Your task to perform on an android device: Go to network settings Image 0: 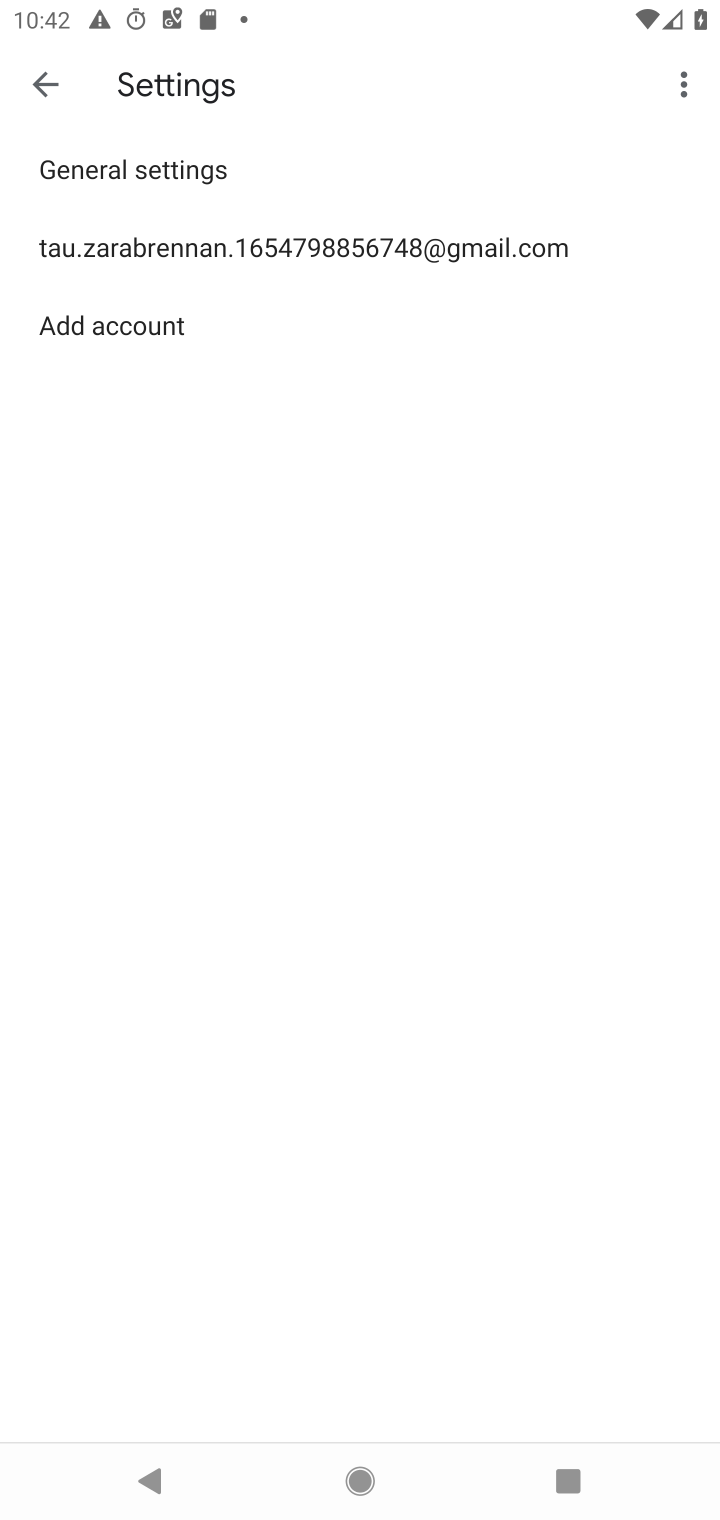
Step 0: press home button
Your task to perform on an android device: Go to network settings Image 1: 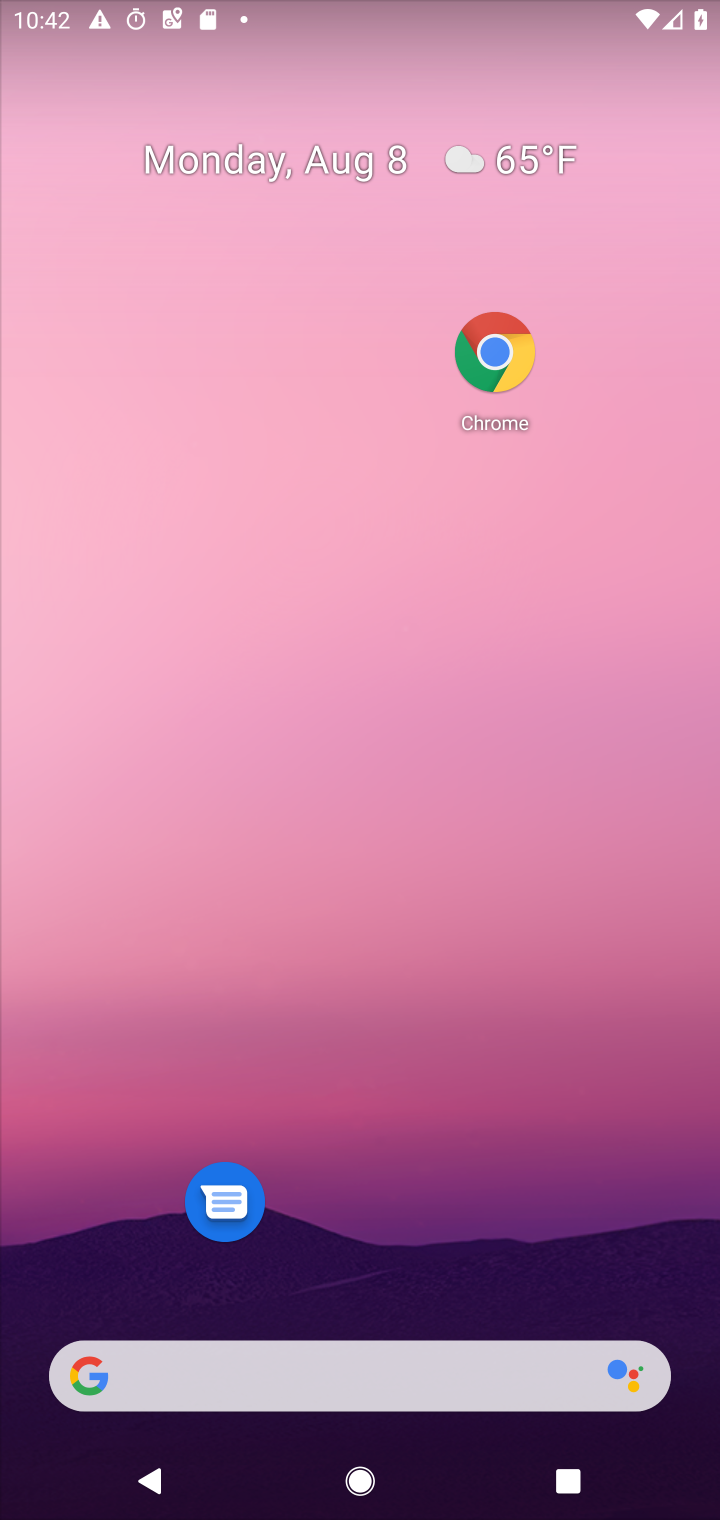
Step 1: drag from (370, 1255) to (404, 564)
Your task to perform on an android device: Go to network settings Image 2: 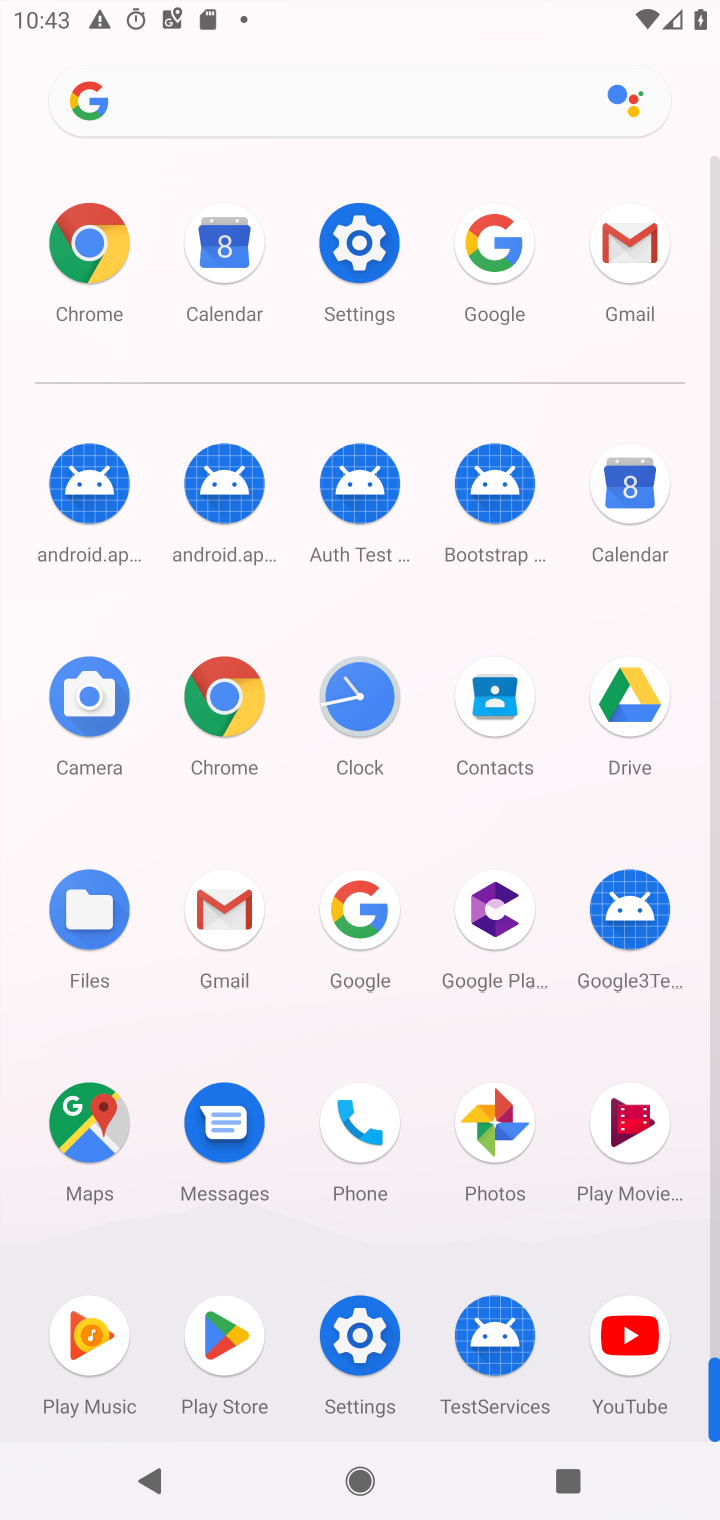
Step 2: click (367, 229)
Your task to perform on an android device: Go to network settings Image 3: 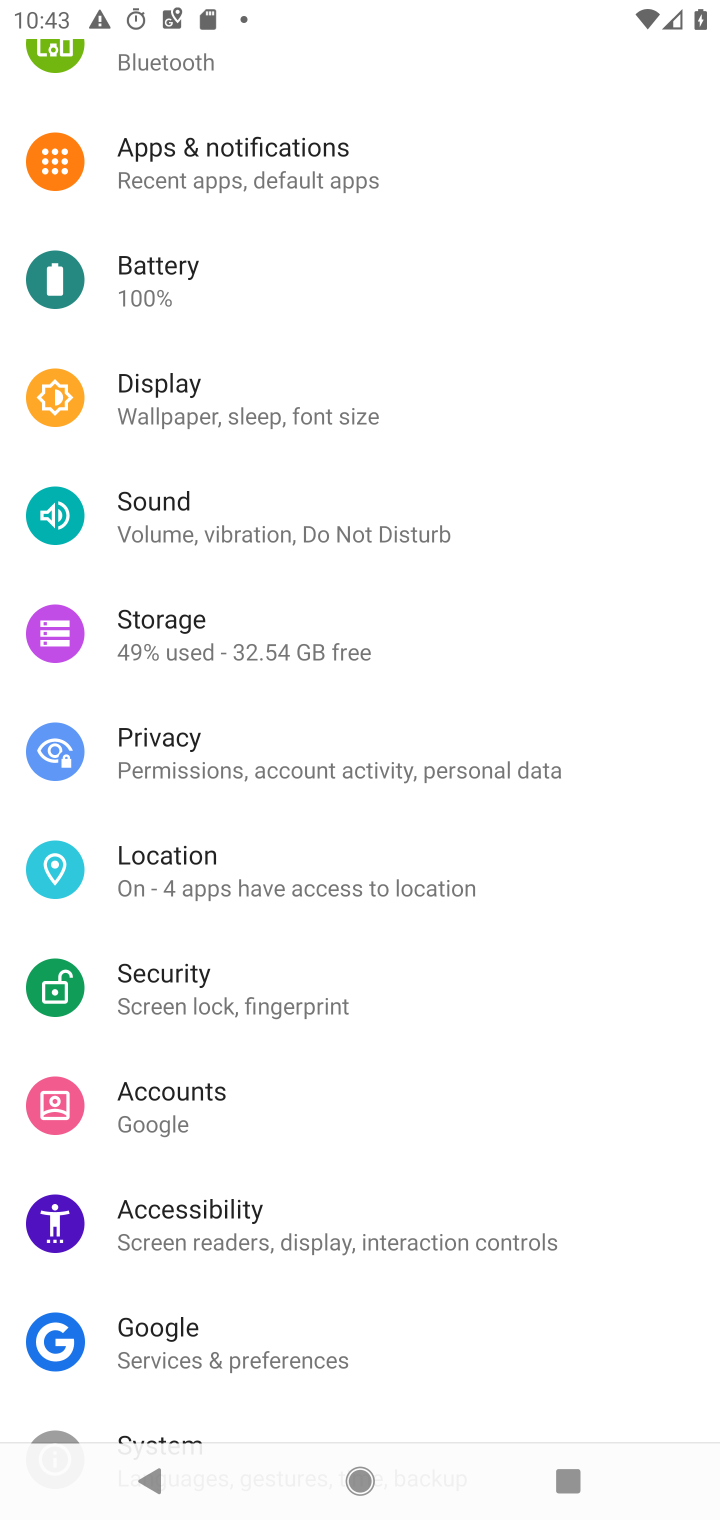
Step 3: drag from (339, 207) to (257, 1114)
Your task to perform on an android device: Go to network settings Image 4: 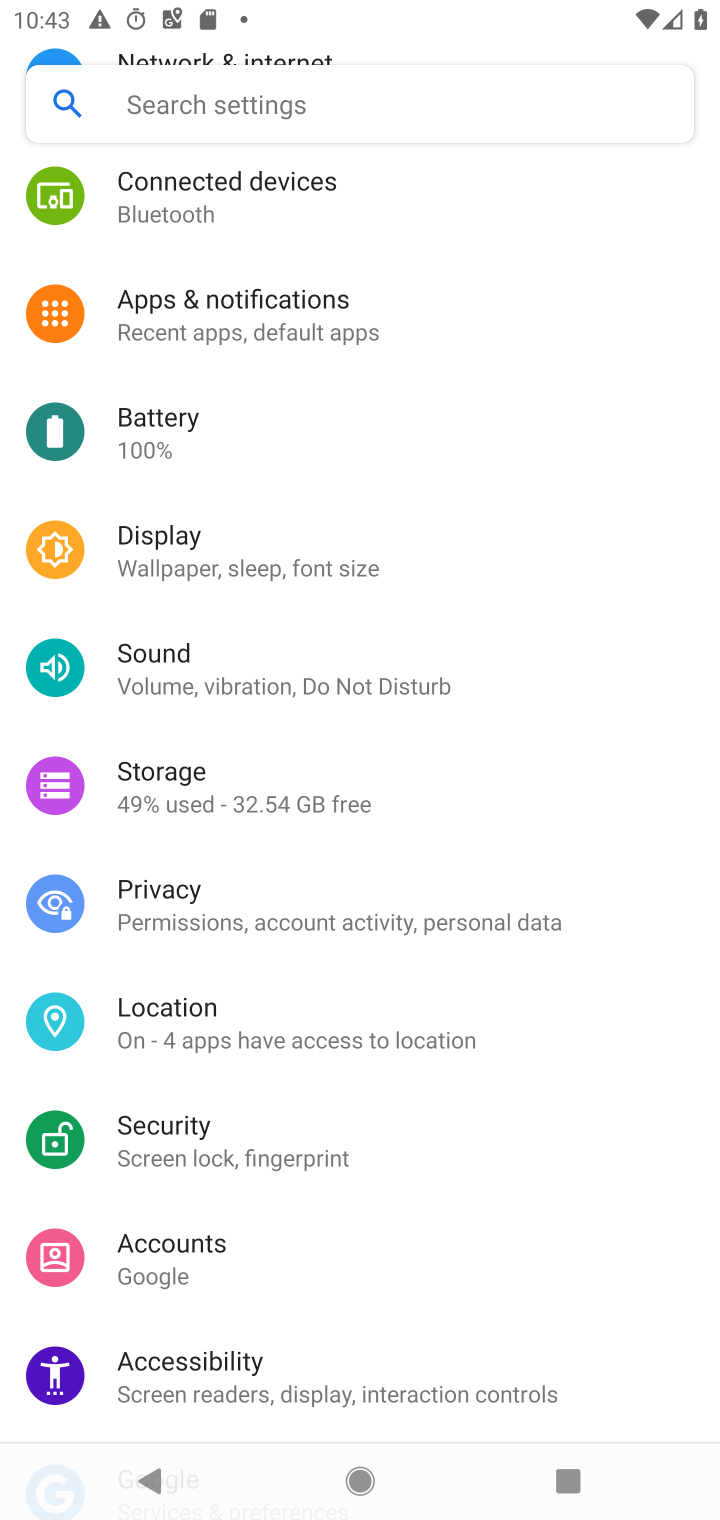
Step 4: drag from (315, 506) to (193, 1199)
Your task to perform on an android device: Go to network settings Image 5: 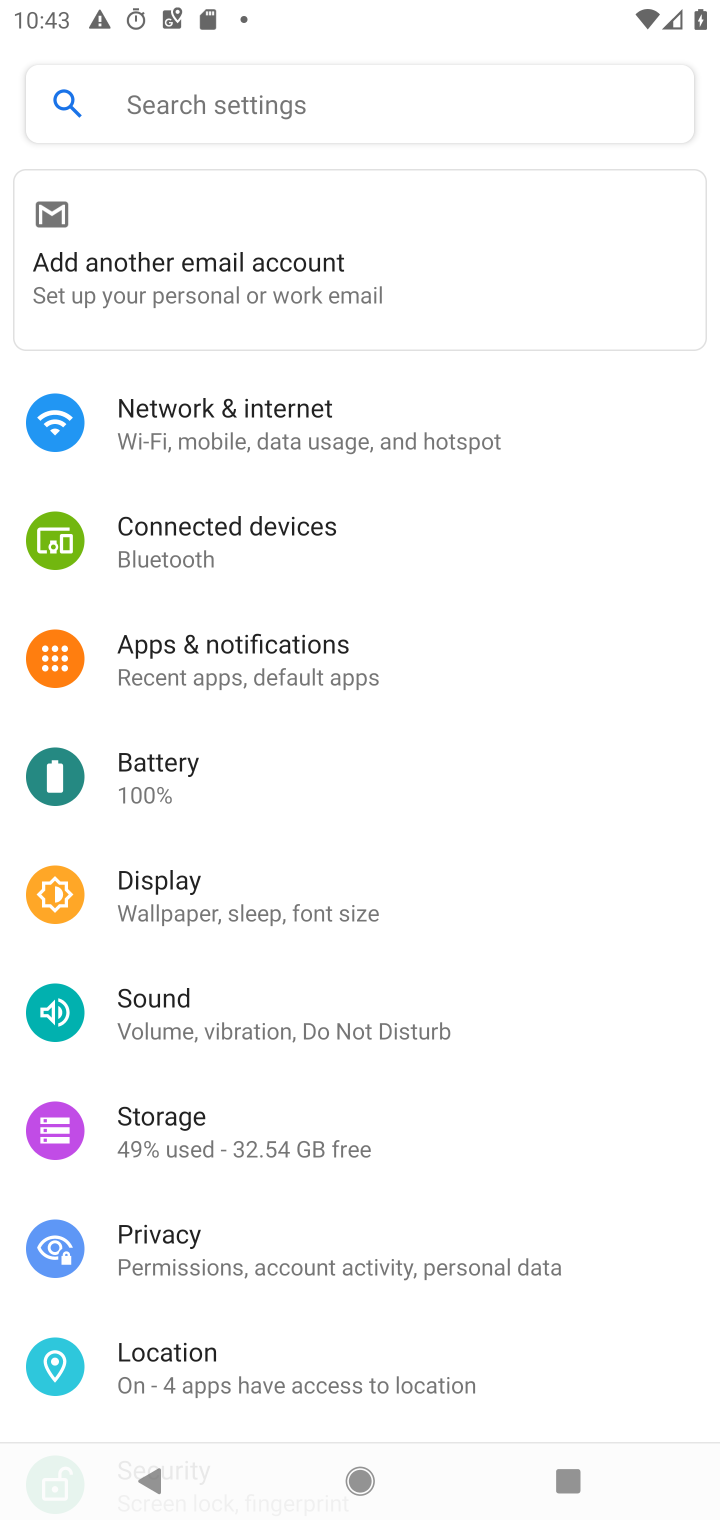
Step 5: click (286, 412)
Your task to perform on an android device: Go to network settings Image 6: 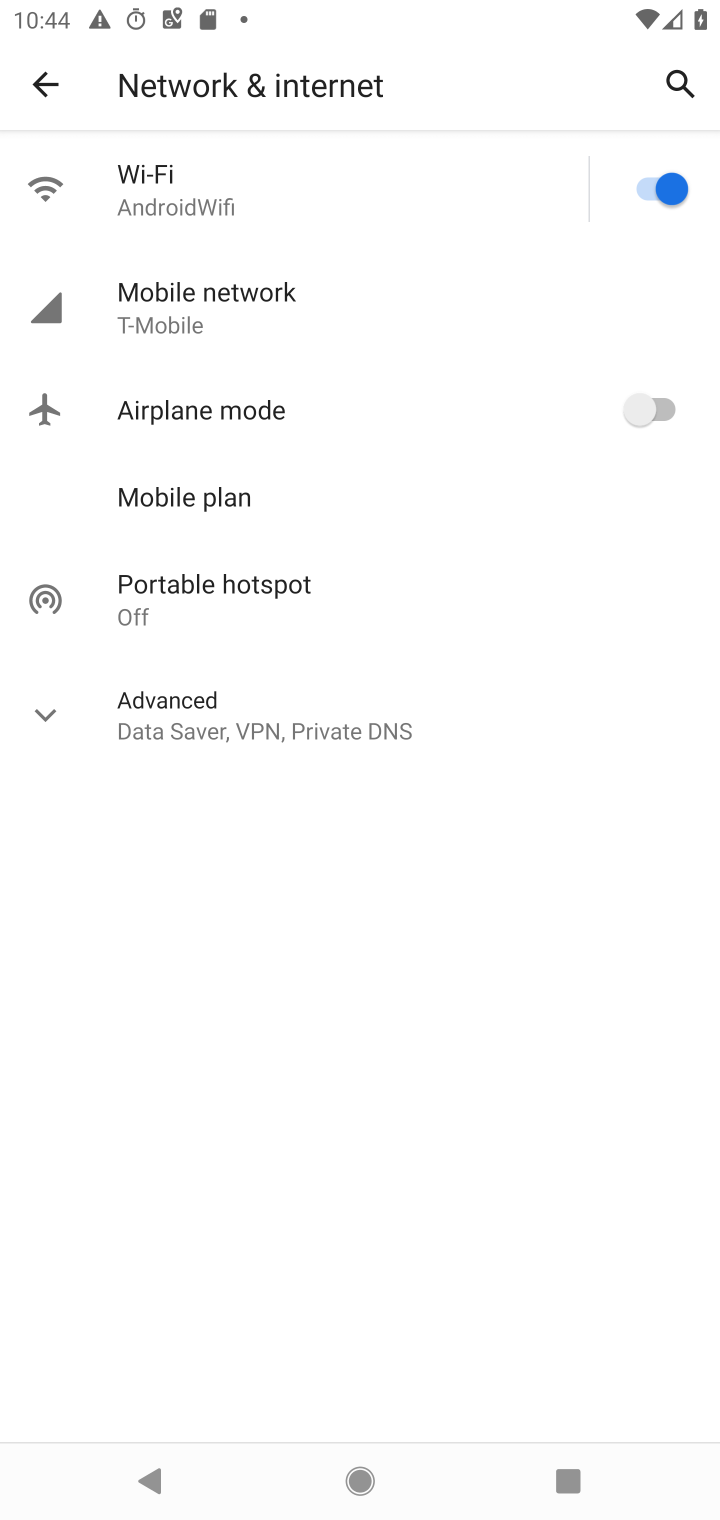
Step 6: click (281, 303)
Your task to perform on an android device: Go to network settings Image 7: 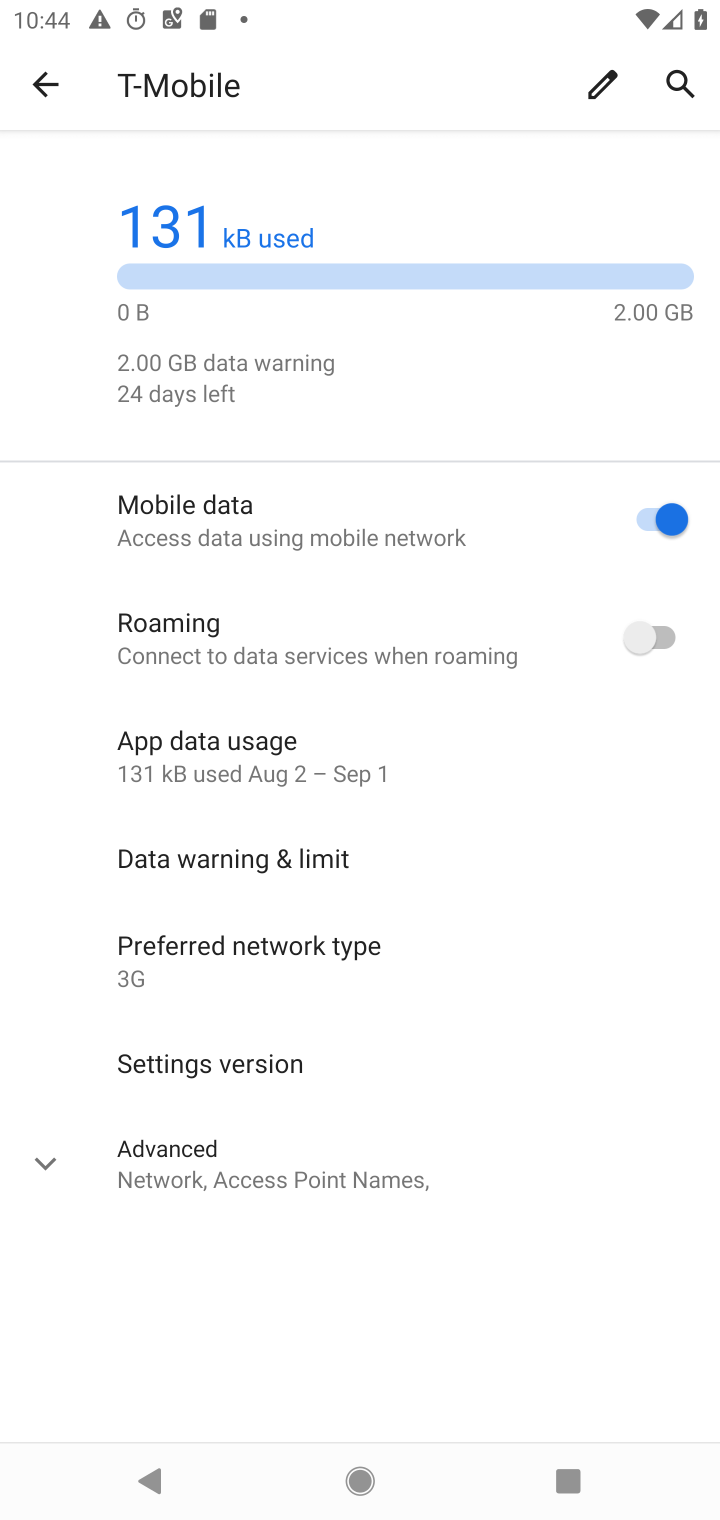
Step 7: task complete